Your task to perform on an android device: set the stopwatch Image 0: 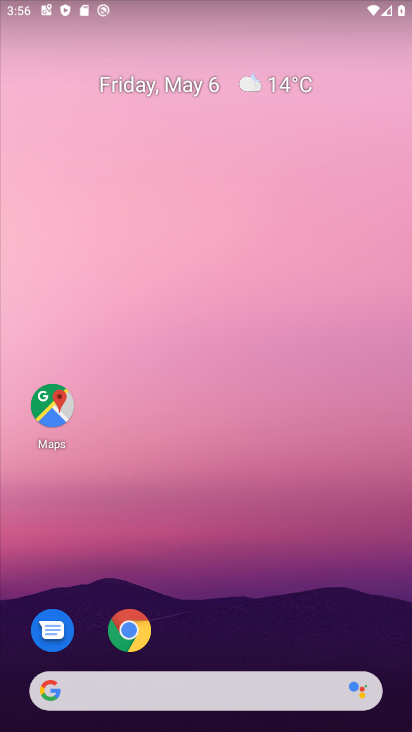
Step 0: drag from (207, 664) to (273, 301)
Your task to perform on an android device: set the stopwatch Image 1: 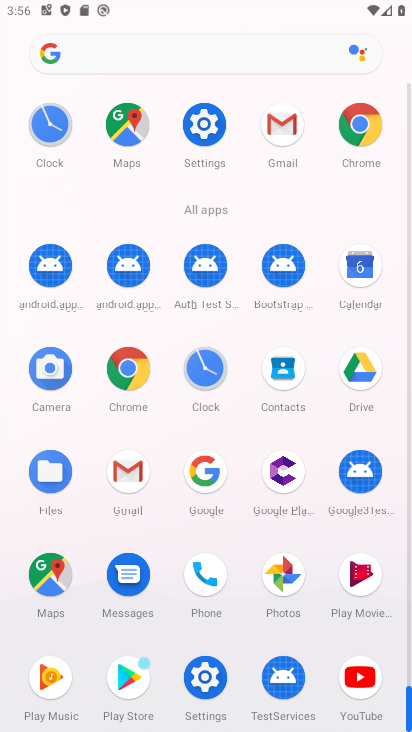
Step 1: click (198, 388)
Your task to perform on an android device: set the stopwatch Image 2: 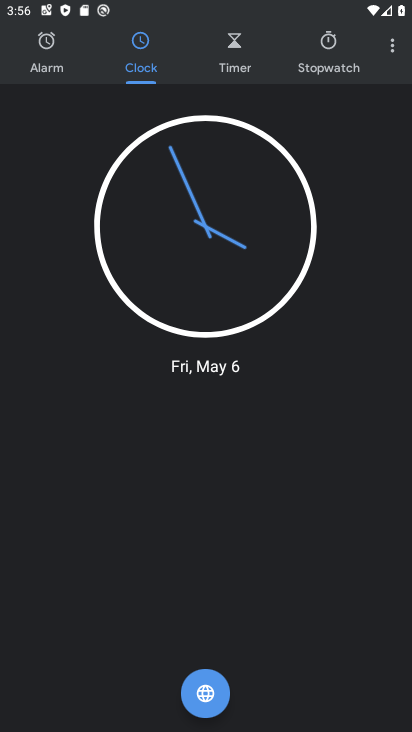
Step 2: click (340, 80)
Your task to perform on an android device: set the stopwatch Image 3: 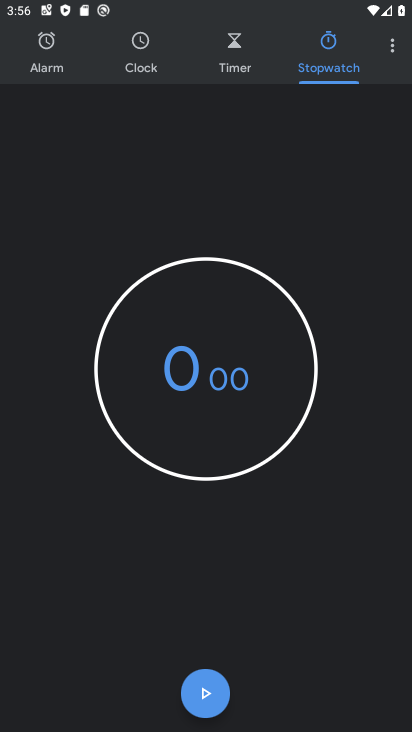
Step 3: click (236, 658)
Your task to perform on an android device: set the stopwatch Image 4: 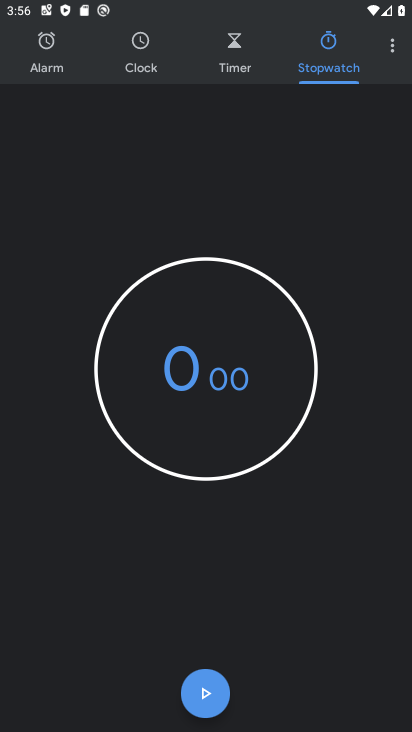
Step 4: click (209, 687)
Your task to perform on an android device: set the stopwatch Image 5: 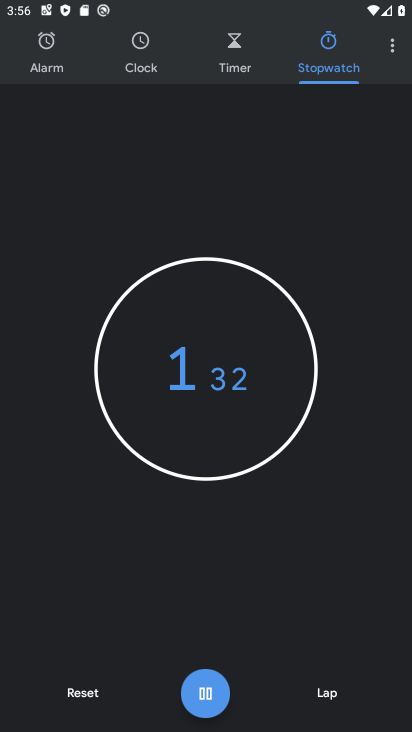
Step 5: task complete